Your task to perform on an android device: What's the weather today? Image 0: 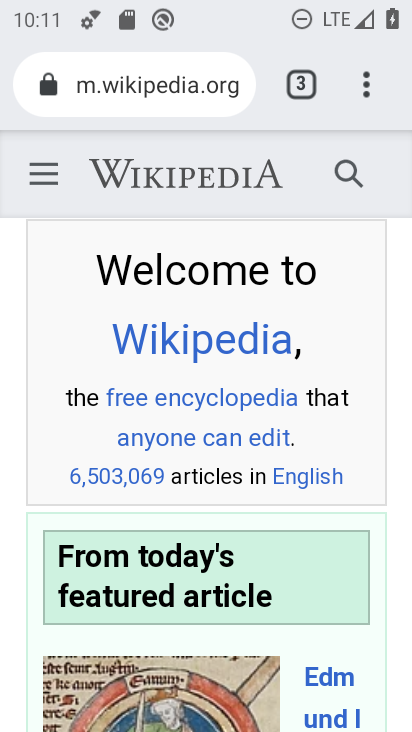
Step 0: press home button
Your task to perform on an android device: What's the weather today? Image 1: 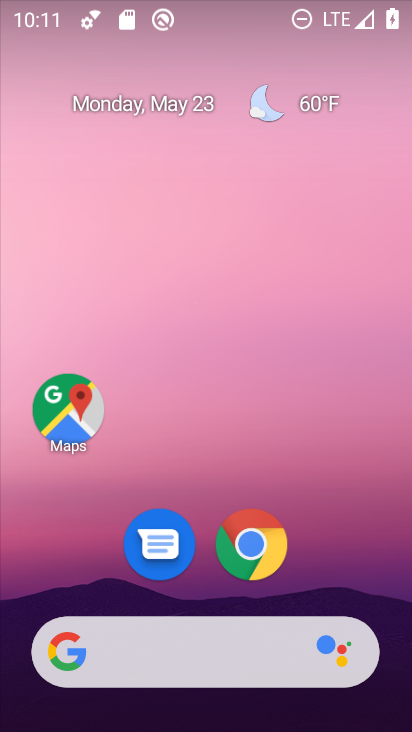
Step 1: click (235, 562)
Your task to perform on an android device: What's the weather today? Image 2: 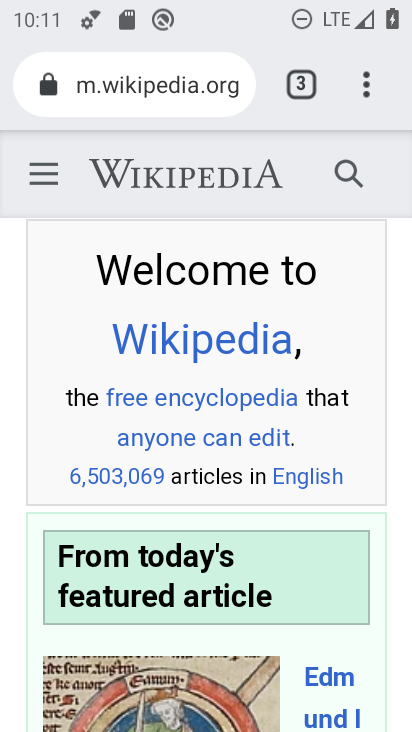
Step 2: click (299, 78)
Your task to perform on an android device: What's the weather today? Image 3: 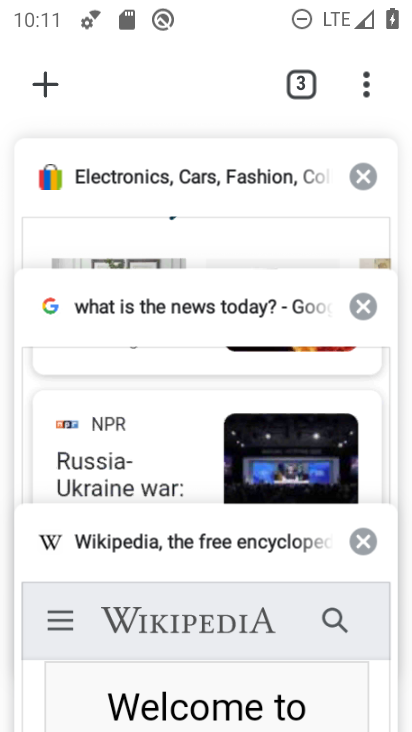
Step 3: click (50, 81)
Your task to perform on an android device: What's the weather today? Image 4: 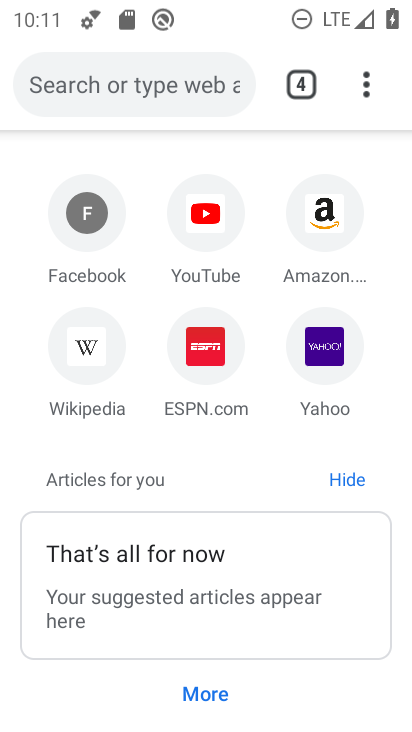
Step 4: click (122, 92)
Your task to perform on an android device: What's the weather today? Image 5: 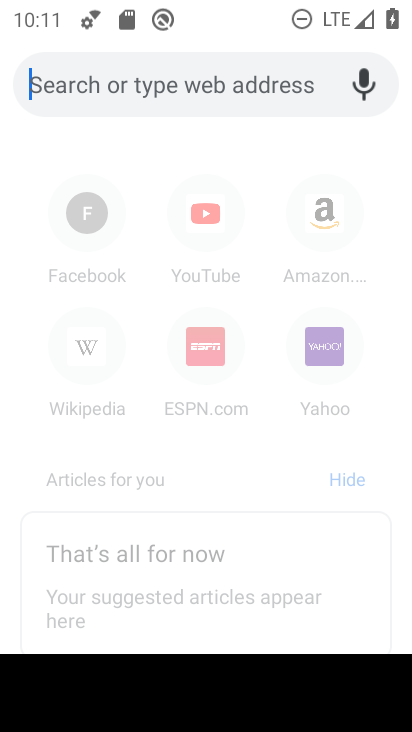
Step 5: type "what's the weather today?"
Your task to perform on an android device: What's the weather today? Image 6: 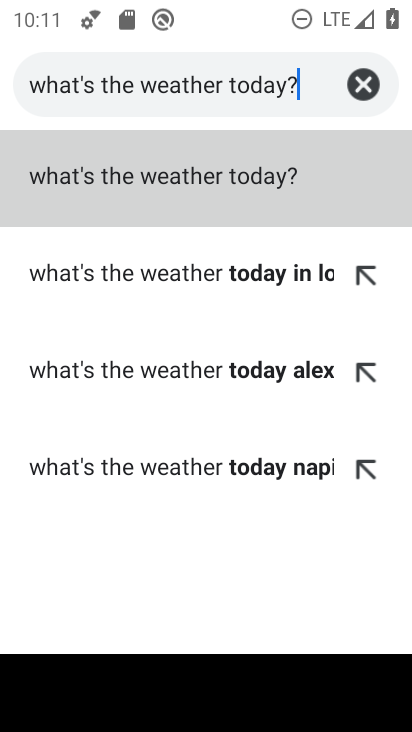
Step 6: click (228, 179)
Your task to perform on an android device: What's the weather today? Image 7: 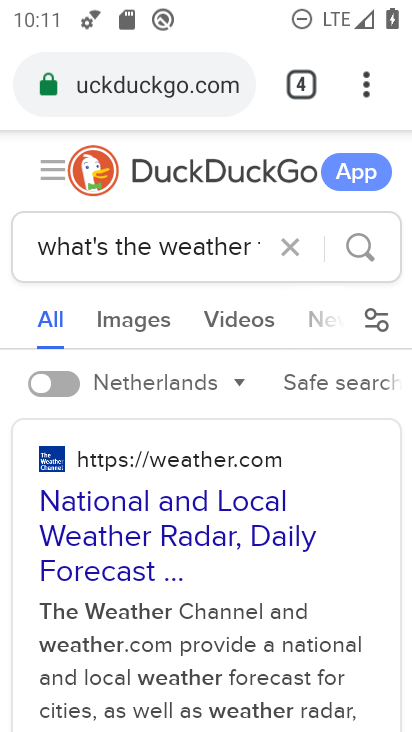
Step 7: drag from (187, 554) to (146, 138)
Your task to perform on an android device: What's the weather today? Image 8: 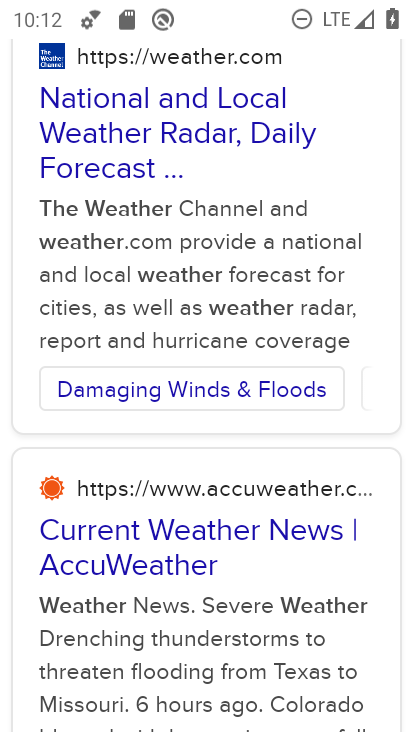
Step 8: click (94, 106)
Your task to perform on an android device: What's the weather today? Image 9: 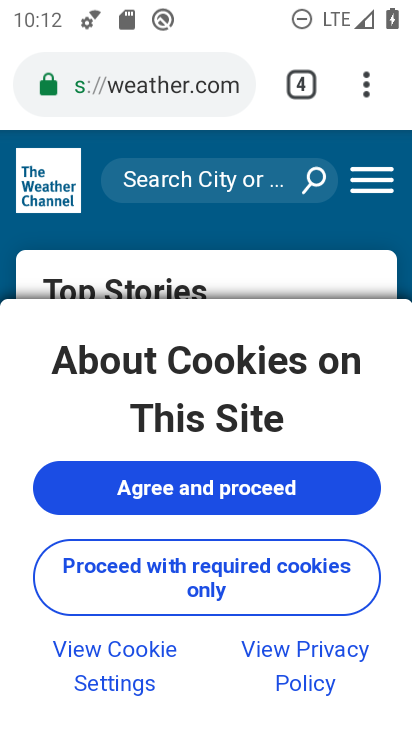
Step 9: click (197, 483)
Your task to perform on an android device: What's the weather today? Image 10: 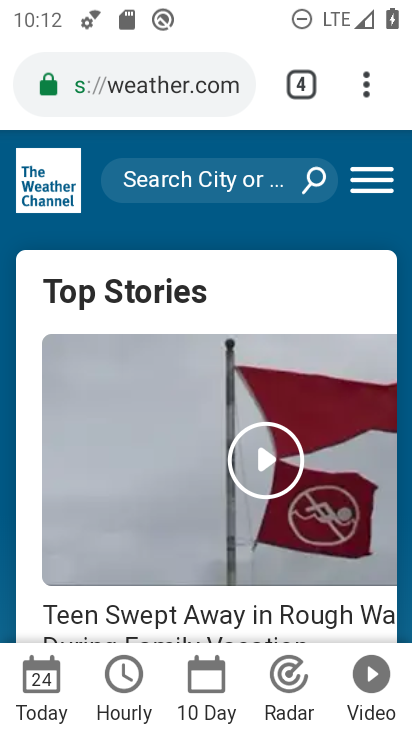
Step 10: drag from (193, 595) to (161, 257)
Your task to perform on an android device: What's the weather today? Image 11: 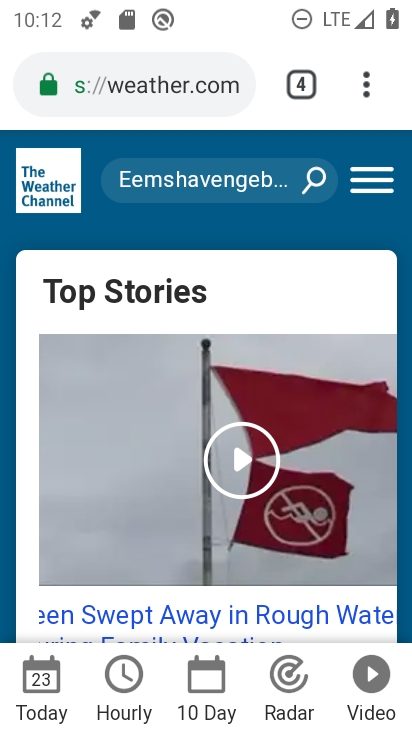
Step 11: drag from (138, 606) to (150, 196)
Your task to perform on an android device: What's the weather today? Image 12: 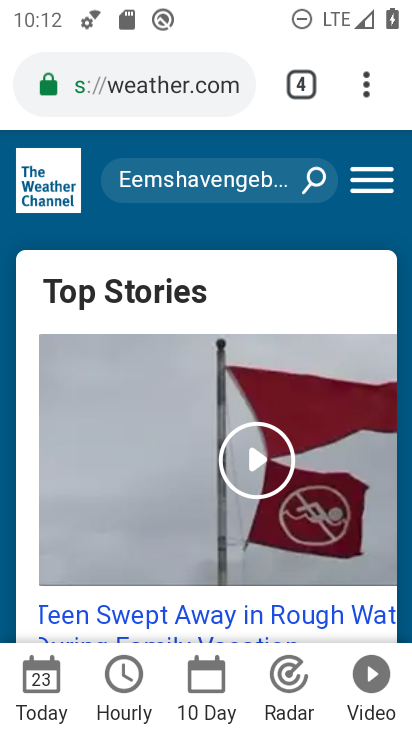
Step 12: click (196, 688)
Your task to perform on an android device: What's the weather today? Image 13: 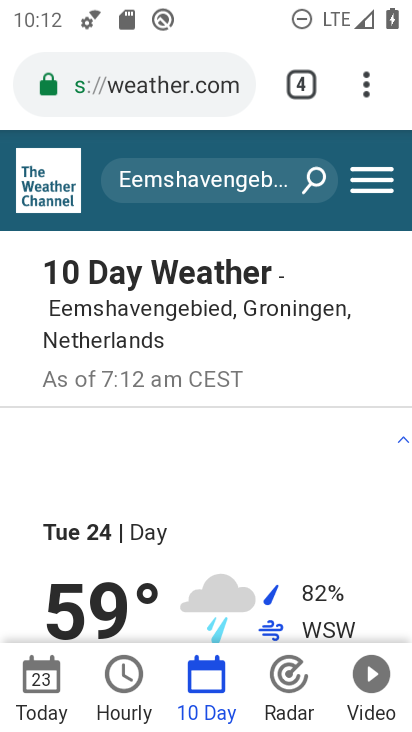
Step 13: task complete